Your task to perform on an android device: turn on the 24-hour format for clock Image 0: 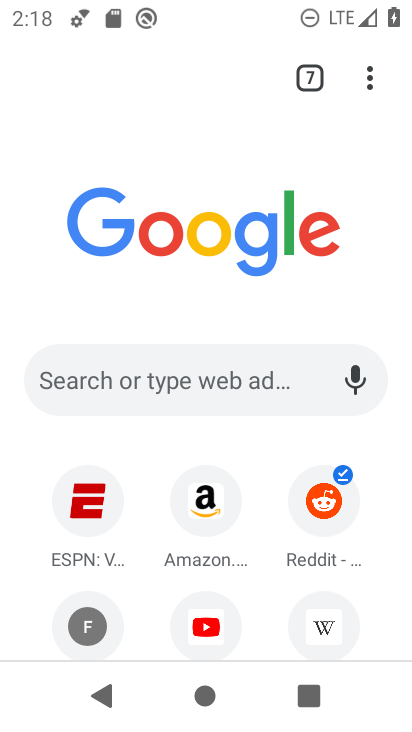
Step 0: press home button
Your task to perform on an android device: turn on the 24-hour format for clock Image 1: 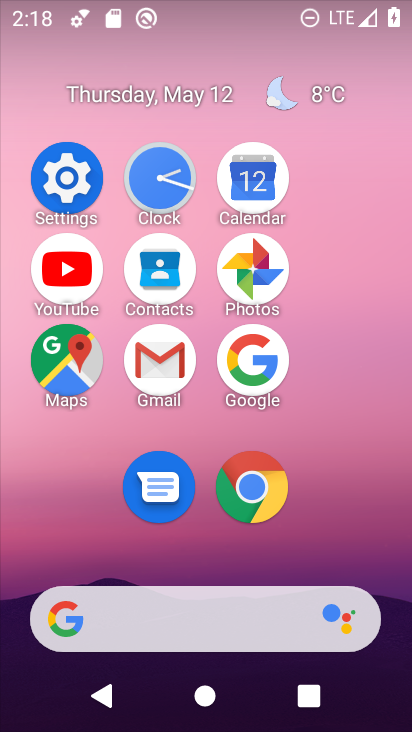
Step 1: click (175, 180)
Your task to perform on an android device: turn on the 24-hour format for clock Image 2: 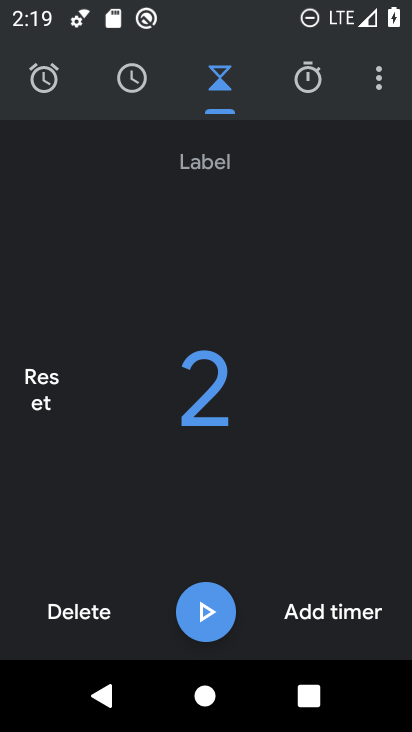
Step 2: click (375, 68)
Your task to perform on an android device: turn on the 24-hour format for clock Image 3: 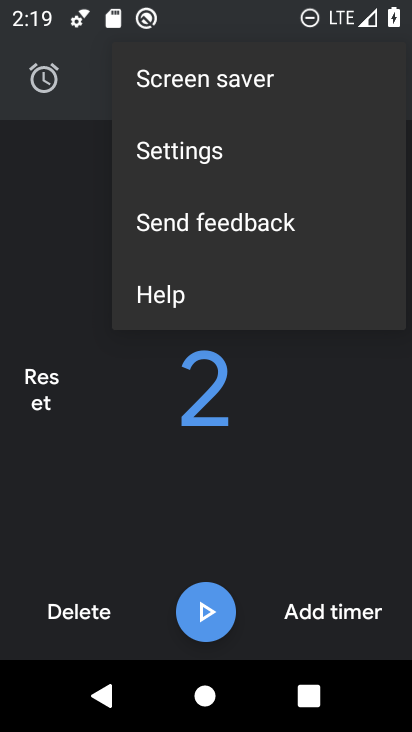
Step 3: click (214, 159)
Your task to perform on an android device: turn on the 24-hour format for clock Image 4: 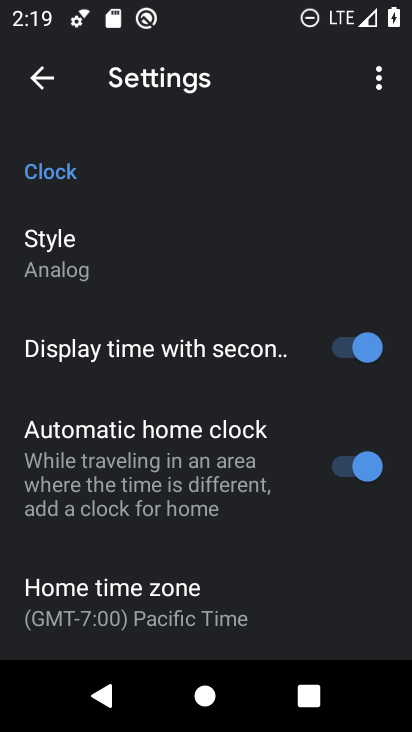
Step 4: drag from (169, 569) to (200, 181)
Your task to perform on an android device: turn on the 24-hour format for clock Image 5: 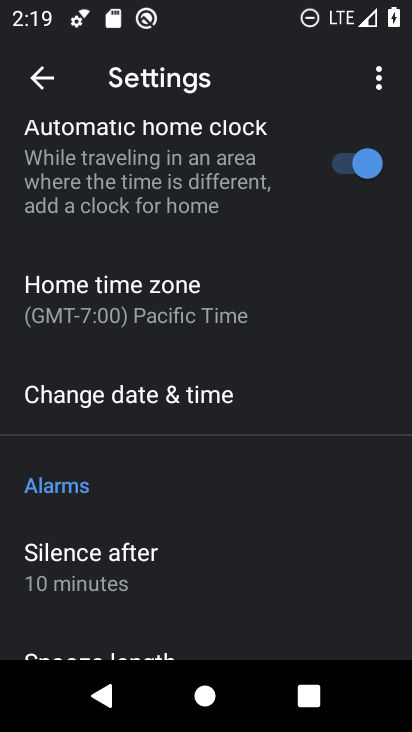
Step 5: click (166, 406)
Your task to perform on an android device: turn on the 24-hour format for clock Image 6: 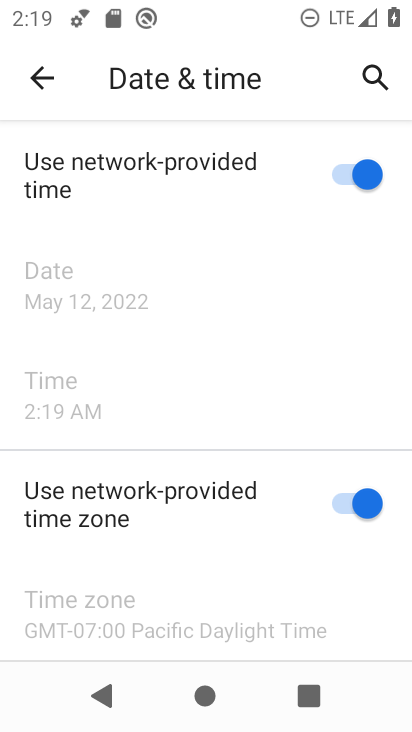
Step 6: drag from (186, 538) to (212, 154)
Your task to perform on an android device: turn on the 24-hour format for clock Image 7: 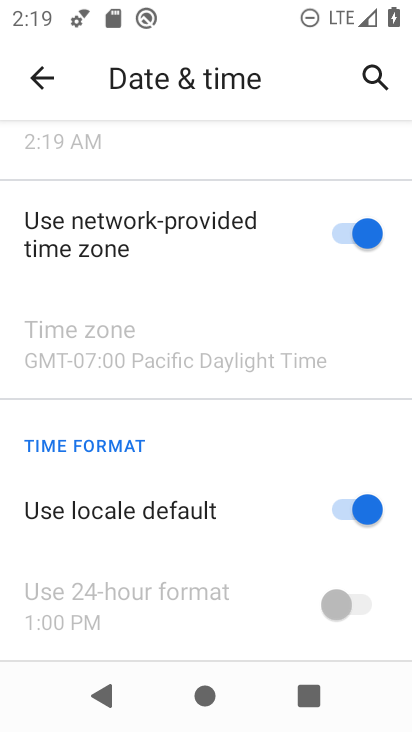
Step 7: click (366, 509)
Your task to perform on an android device: turn on the 24-hour format for clock Image 8: 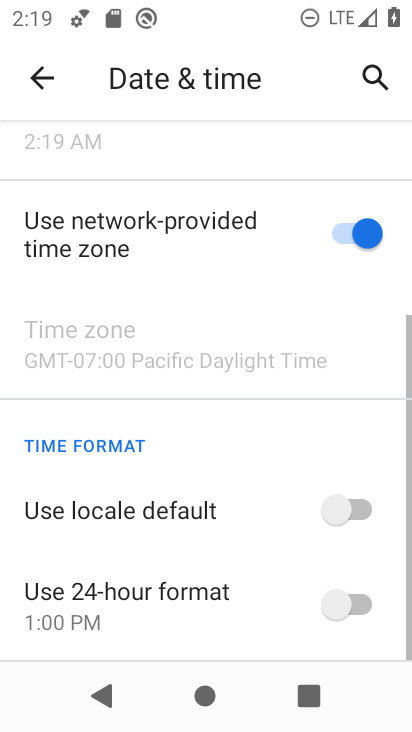
Step 8: click (335, 610)
Your task to perform on an android device: turn on the 24-hour format for clock Image 9: 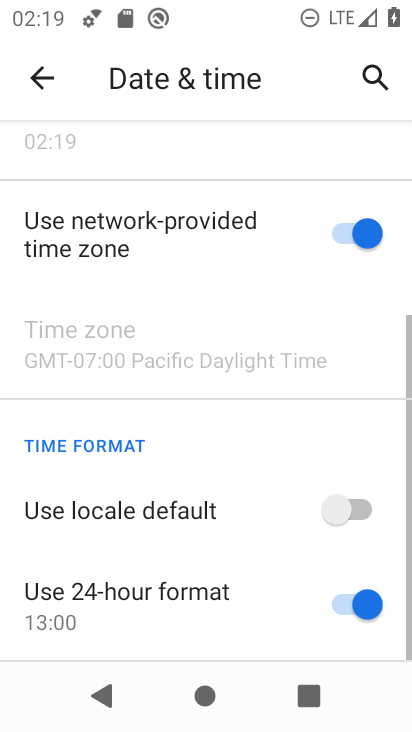
Step 9: task complete